Your task to perform on an android device: toggle show notifications on the lock screen Image 0: 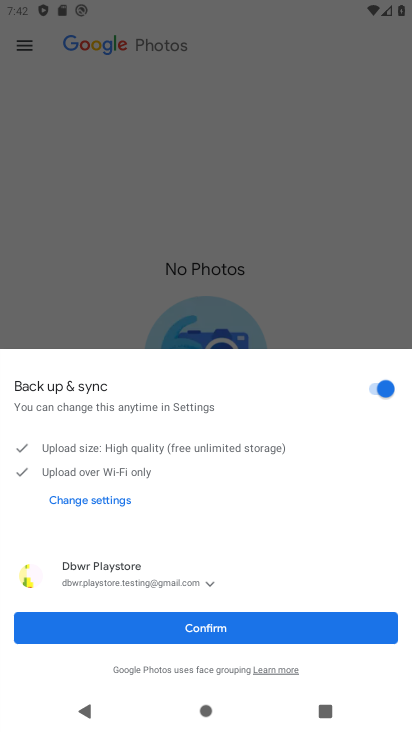
Step 0: press home button
Your task to perform on an android device: toggle show notifications on the lock screen Image 1: 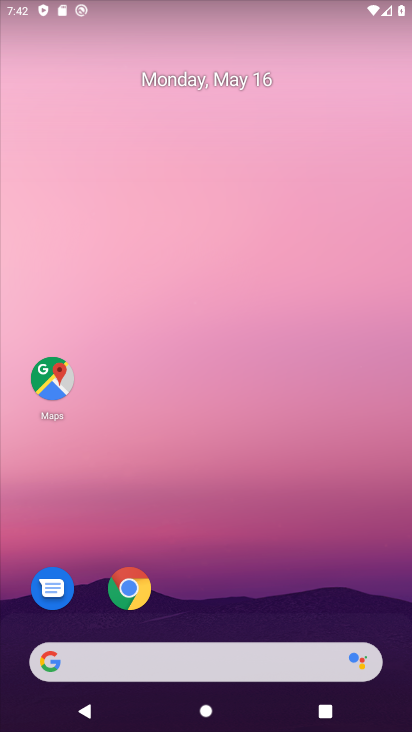
Step 1: drag from (183, 580) to (242, 156)
Your task to perform on an android device: toggle show notifications on the lock screen Image 2: 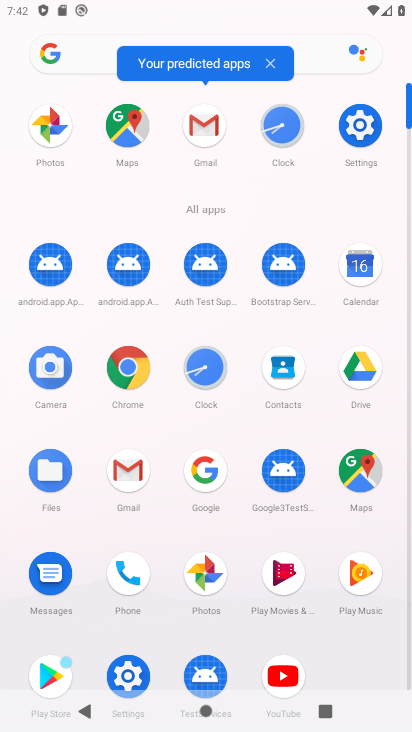
Step 2: click (351, 124)
Your task to perform on an android device: toggle show notifications on the lock screen Image 3: 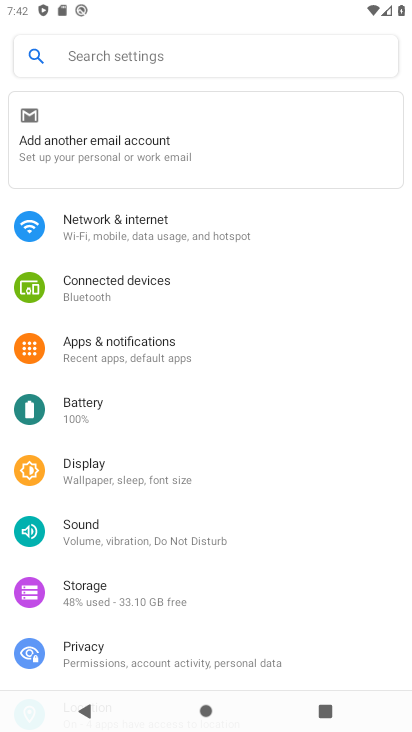
Step 3: click (157, 347)
Your task to perform on an android device: toggle show notifications on the lock screen Image 4: 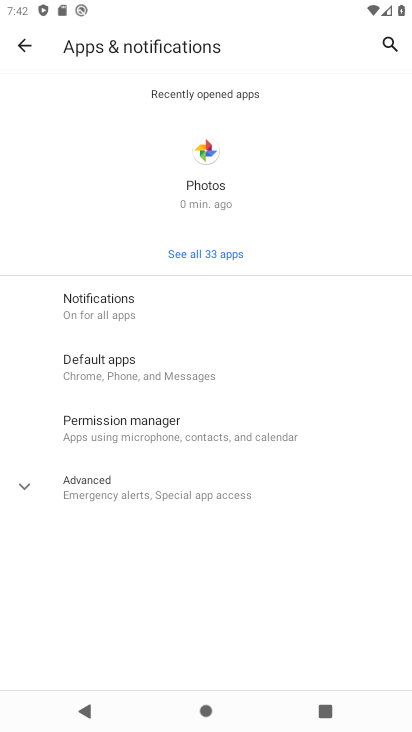
Step 4: click (153, 302)
Your task to perform on an android device: toggle show notifications on the lock screen Image 5: 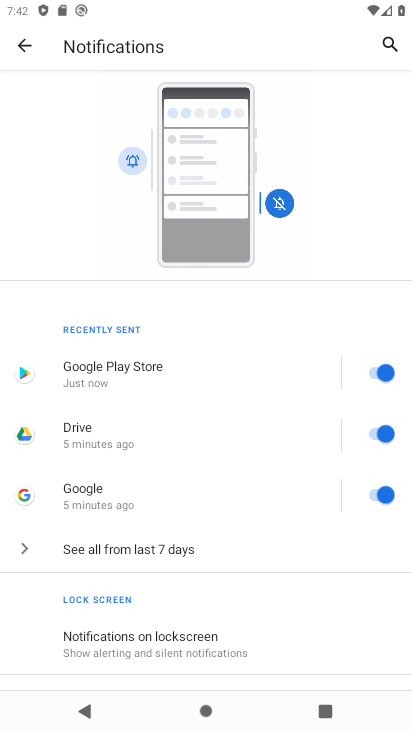
Step 5: click (175, 650)
Your task to perform on an android device: toggle show notifications on the lock screen Image 6: 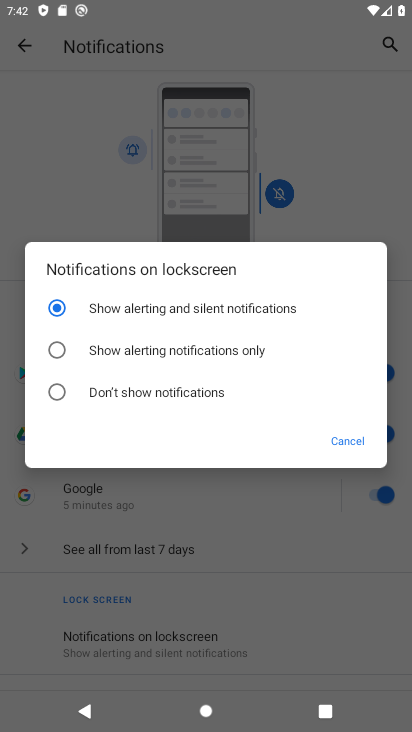
Step 6: task complete